Your task to perform on an android device: Open Chrome and go to settings Image 0: 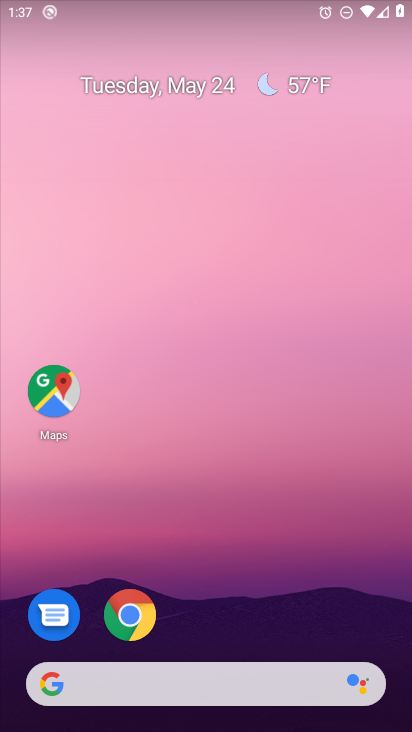
Step 0: click (132, 605)
Your task to perform on an android device: Open Chrome and go to settings Image 1: 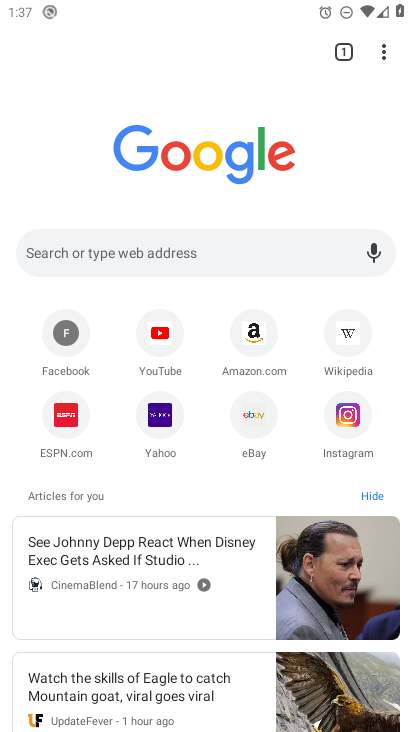
Step 1: click (380, 53)
Your task to perform on an android device: Open Chrome and go to settings Image 2: 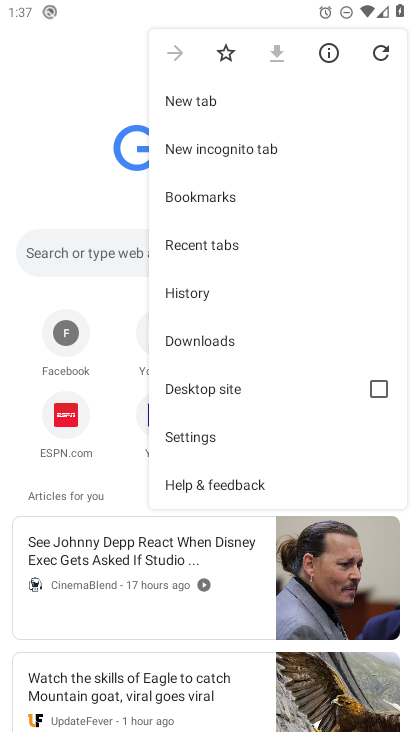
Step 2: click (214, 432)
Your task to perform on an android device: Open Chrome and go to settings Image 3: 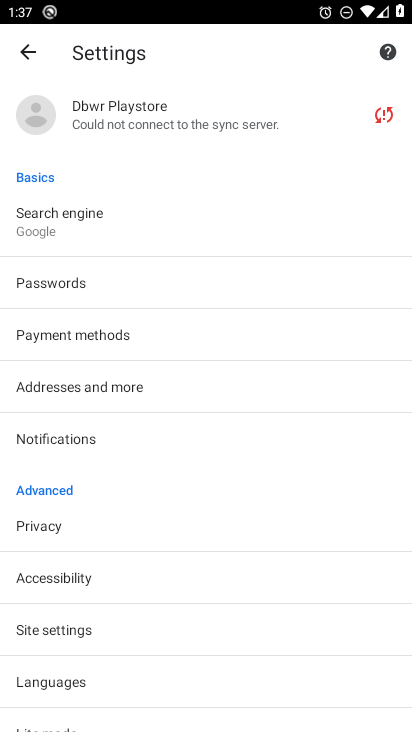
Step 3: task complete